Your task to perform on an android device: View the shopping cart on walmart. Search for sony triple a on walmart, select the first entry, and add it to the cart. Image 0: 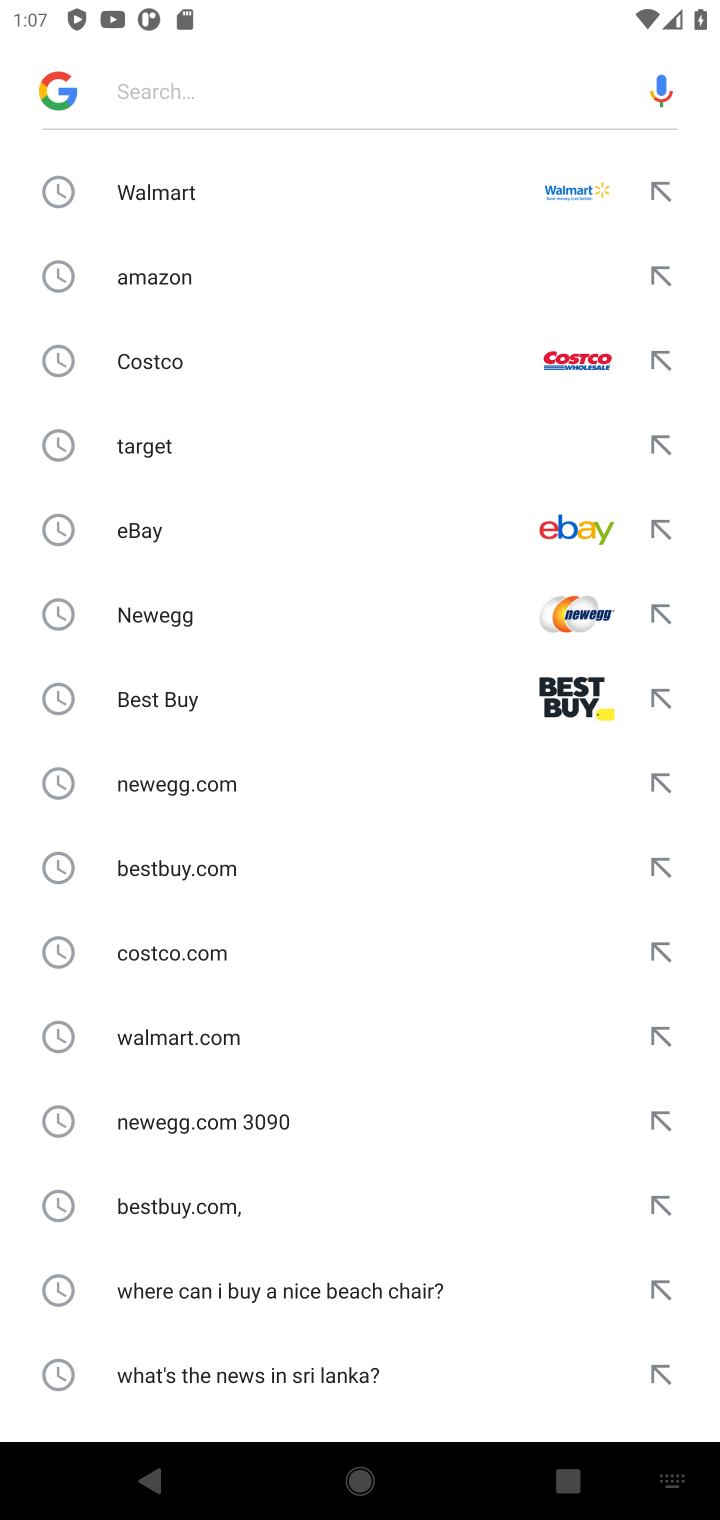
Step 0: click (206, 209)
Your task to perform on an android device: View the shopping cart on walmart. Search for sony triple a on walmart, select the first entry, and add it to the cart. Image 1: 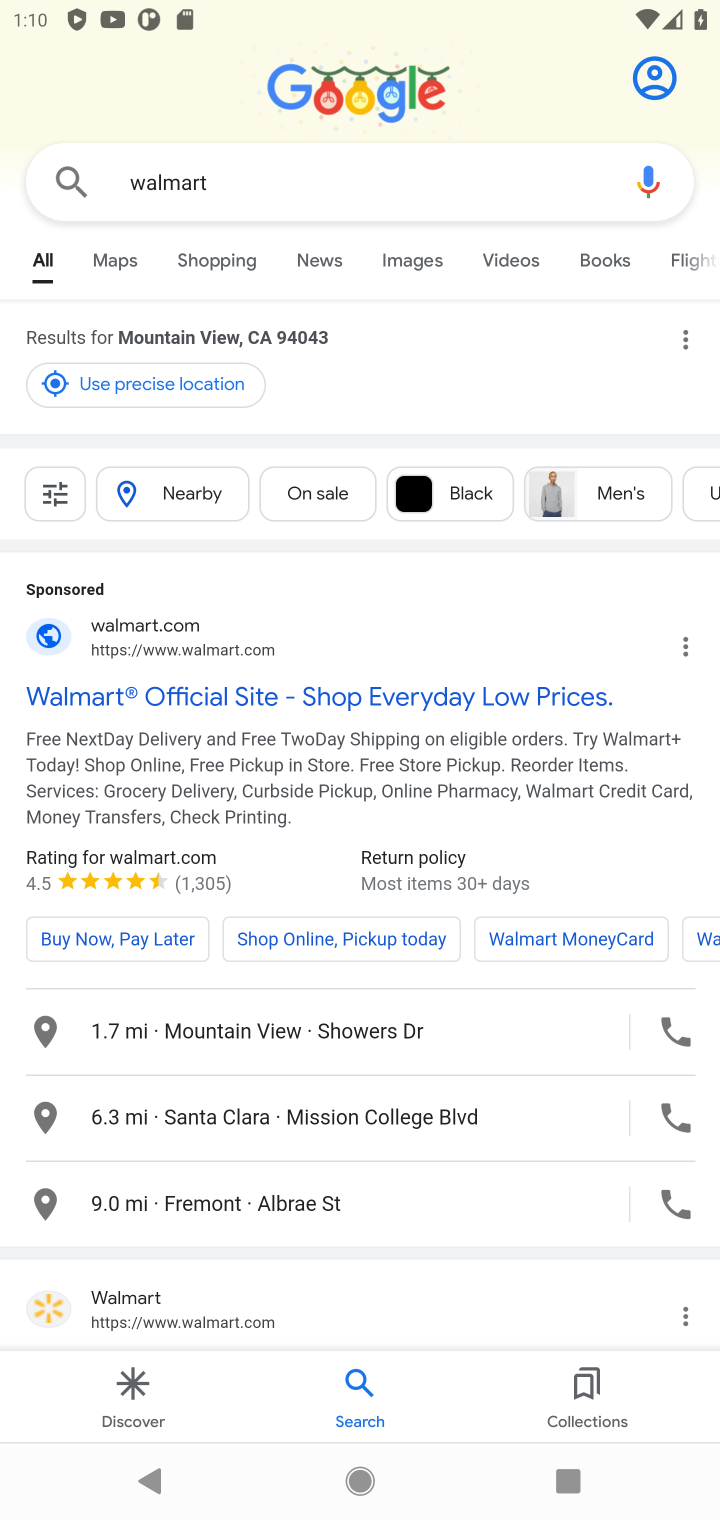
Step 1: task complete